Your task to perform on an android device: check data usage Image 0: 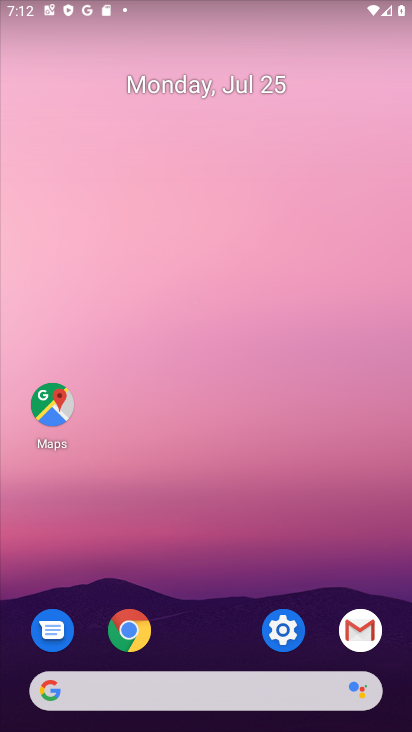
Step 0: click (289, 635)
Your task to perform on an android device: check data usage Image 1: 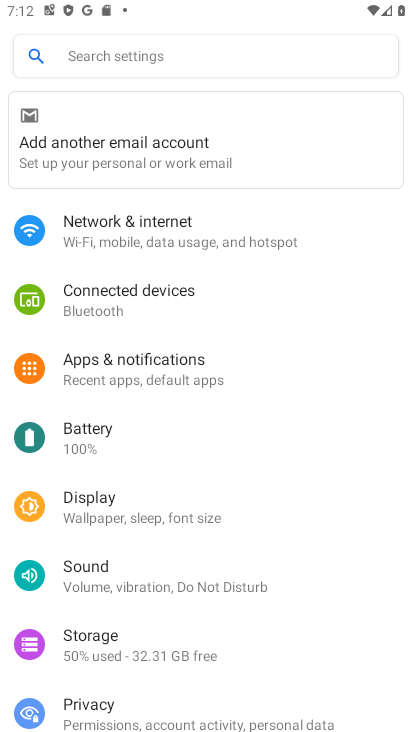
Step 1: click (98, 48)
Your task to perform on an android device: check data usage Image 2: 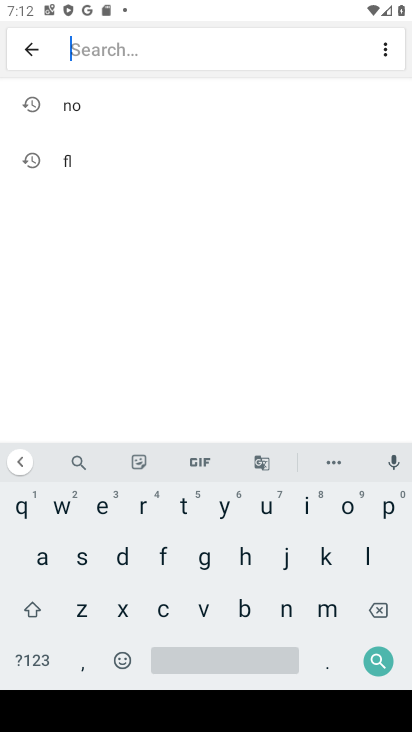
Step 2: click (117, 570)
Your task to perform on an android device: check data usage Image 3: 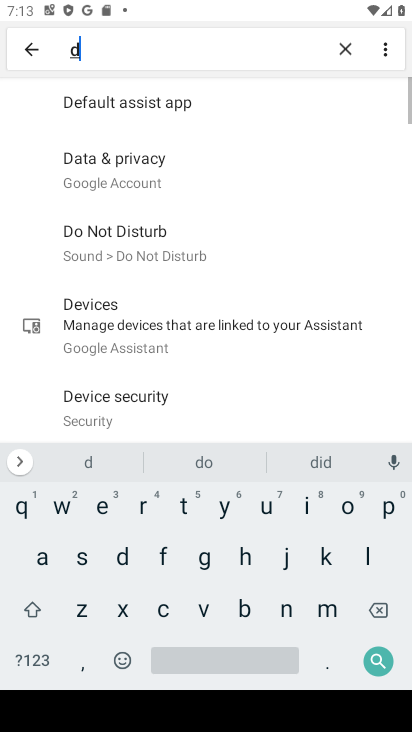
Step 3: click (35, 544)
Your task to perform on an android device: check data usage Image 4: 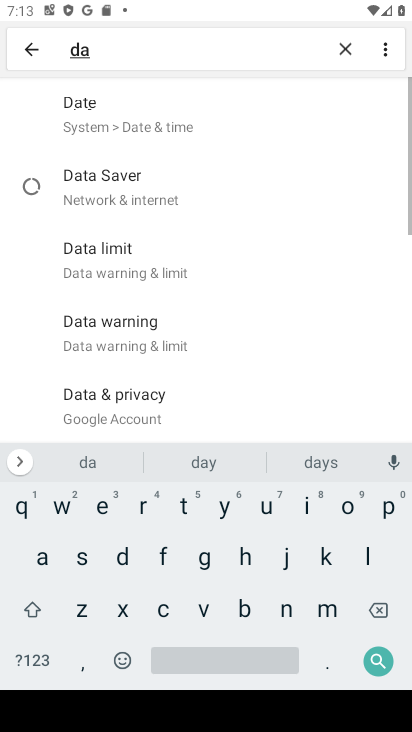
Step 4: click (189, 502)
Your task to perform on an android device: check data usage Image 5: 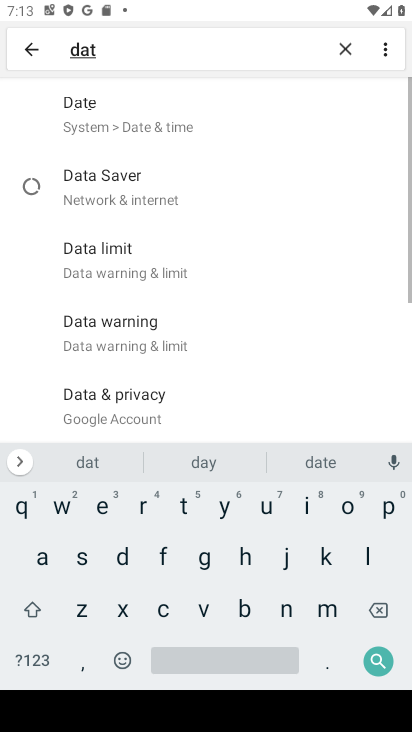
Step 5: click (39, 554)
Your task to perform on an android device: check data usage Image 6: 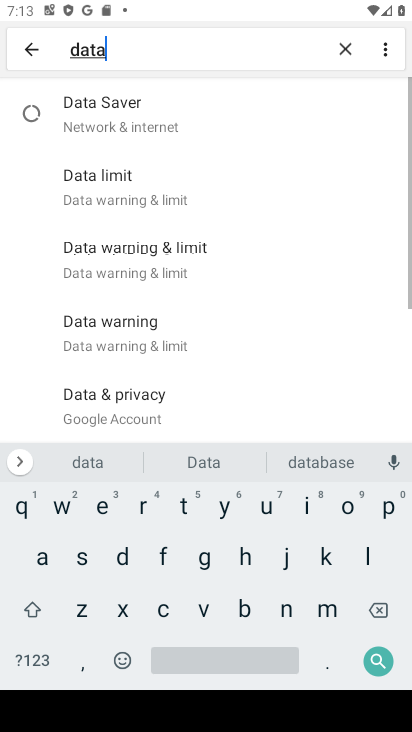
Step 6: click (211, 659)
Your task to perform on an android device: check data usage Image 7: 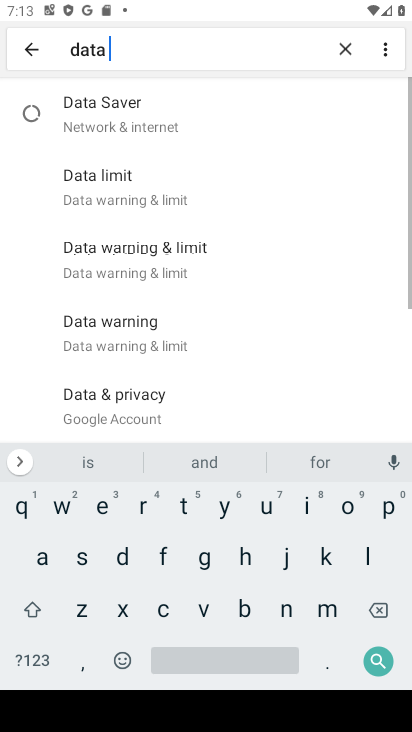
Step 7: click (266, 510)
Your task to perform on an android device: check data usage Image 8: 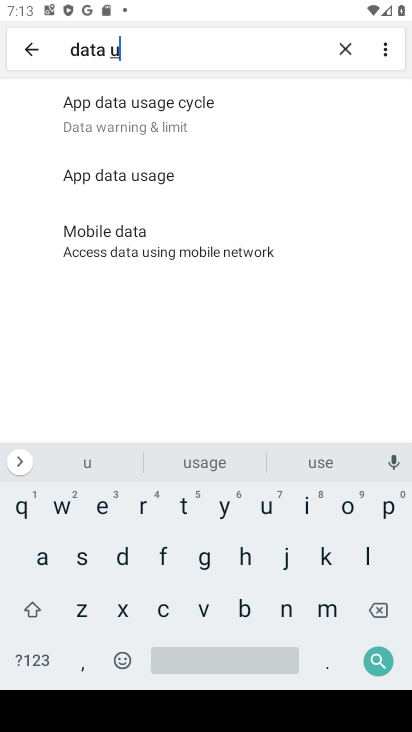
Step 8: click (137, 174)
Your task to perform on an android device: check data usage Image 9: 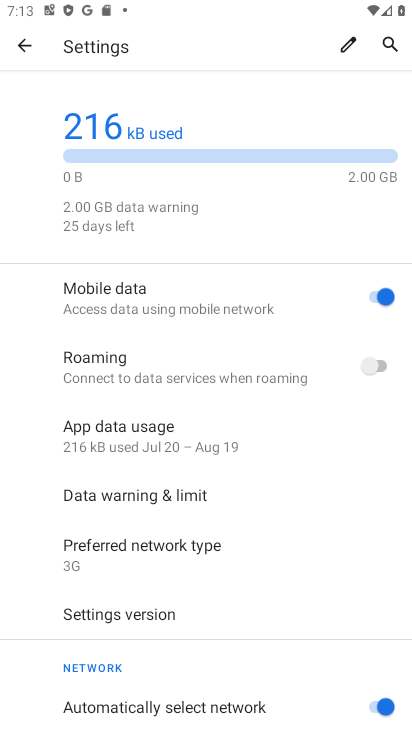
Step 9: task complete